Your task to perform on an android device: change the clock style Image 0: 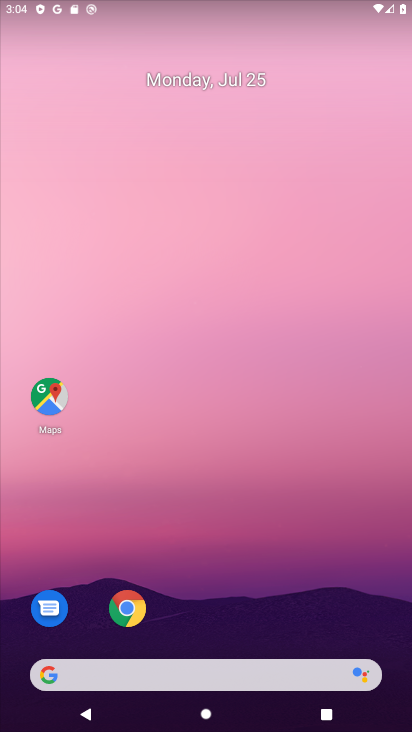
Step 0: drag from (32, 731) to (386, 58)
Your task to perform on an android device: change the clock style Image 1: 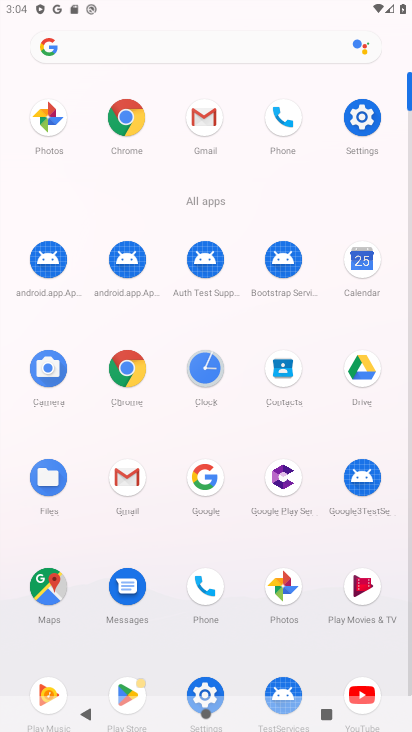
Step 1: click (204, 367)
Your task to perform on an android device: change the clock style Image 2: 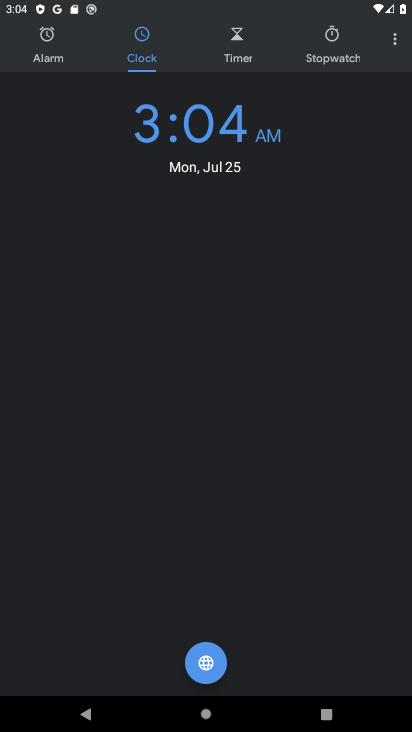
Step 2: click (392, 33)
Your task to perform on an android device: change the clock style Image 3: 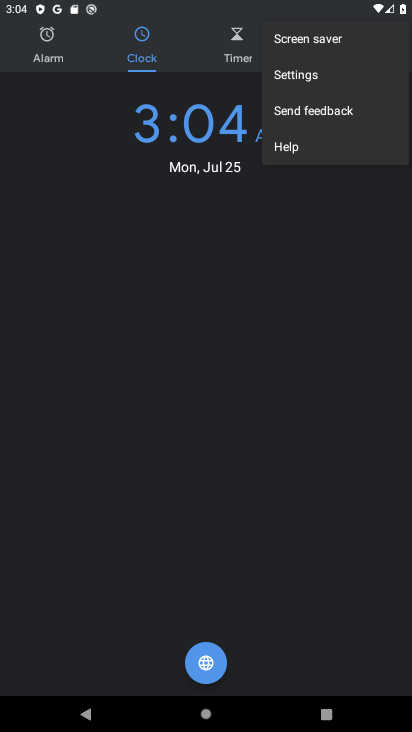
Step 3: click (280, 70)
Your task to perform on an android device: change the clock style Image 4: 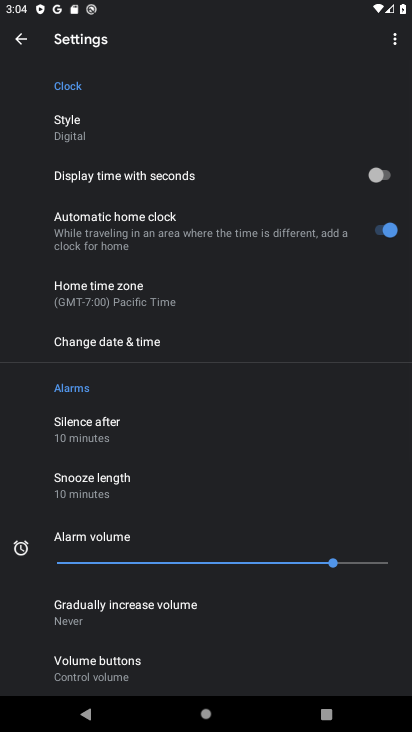
Step 4: click (114, 132)
Your task to perform on an android device: change the clock style Image 5: 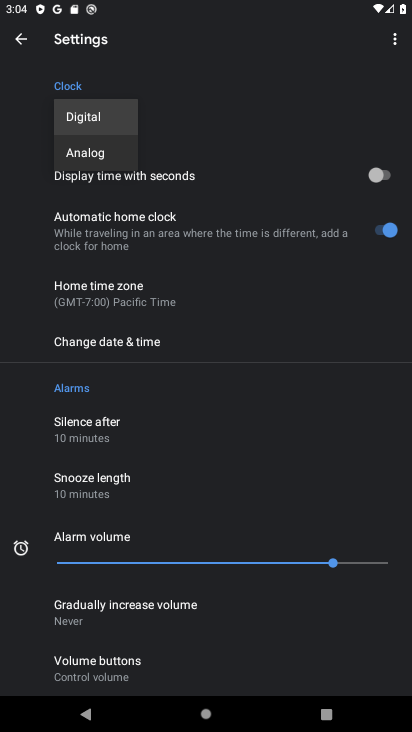
Step 5: click (95, 154)
Your task to perform on an android device: change the clock style Image 6: 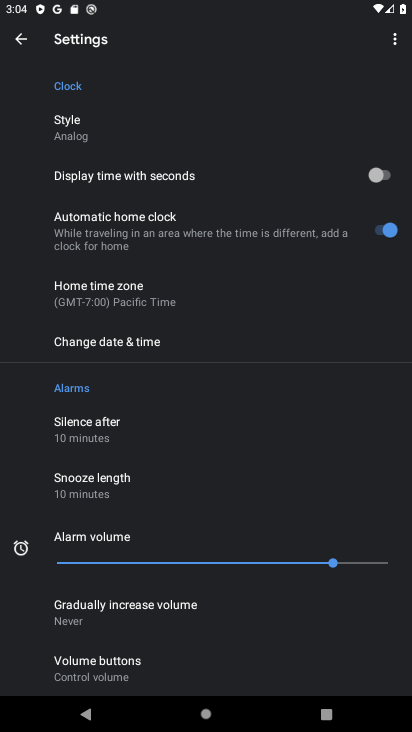
Step 6: task complete